Your task to perform on an android device: read, delete, or share a saved page in the chrome app Image 0: 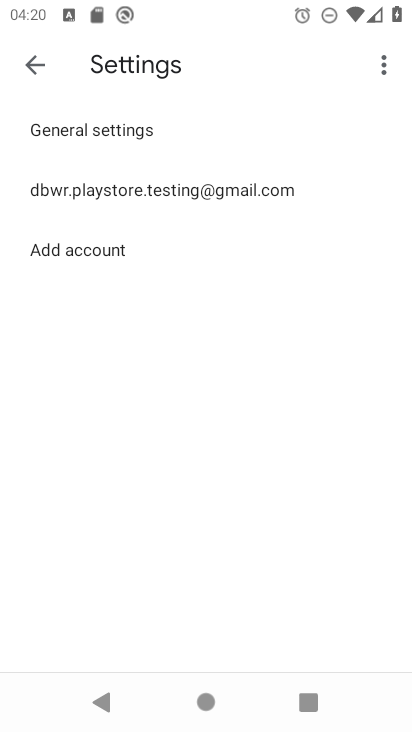
Step 0: press home button
Your task to perform on an android device: read, delete, or share a saved page in the chrome app Image 1: 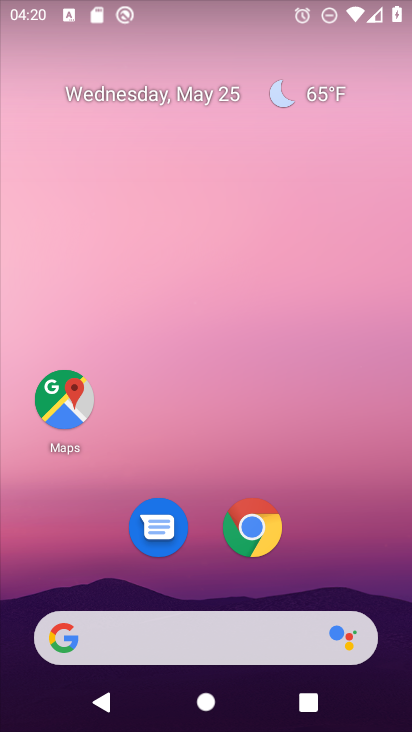
Step 1: drag from (326, 569) to (405, 4)
Your task to perform on an android device: read, delete, or share a saved page in the chrome app Image 2: 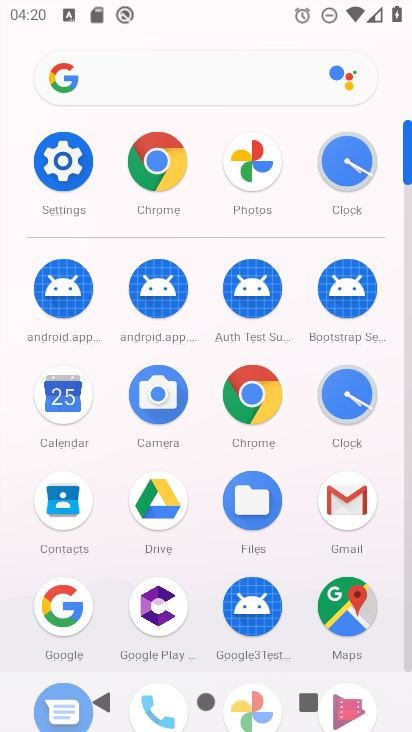
Step 2: click (251, 400)
Your task to perform on an android device: read, delete, or share a saved page in the chrome app Image 3: 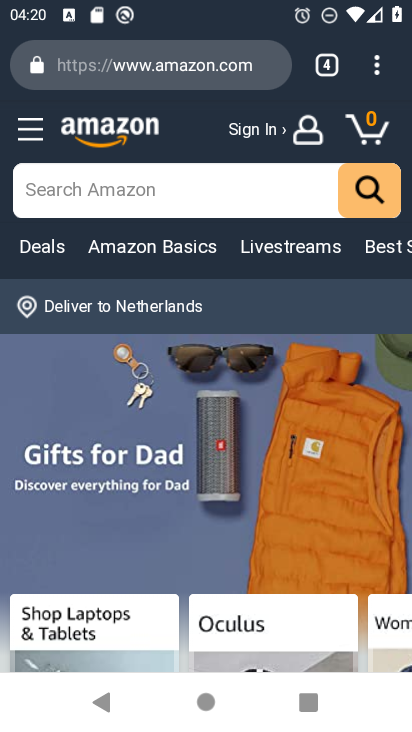
Step 3: task complete